Your task to perform on an android device: add a contact in the contacts app Image 0: 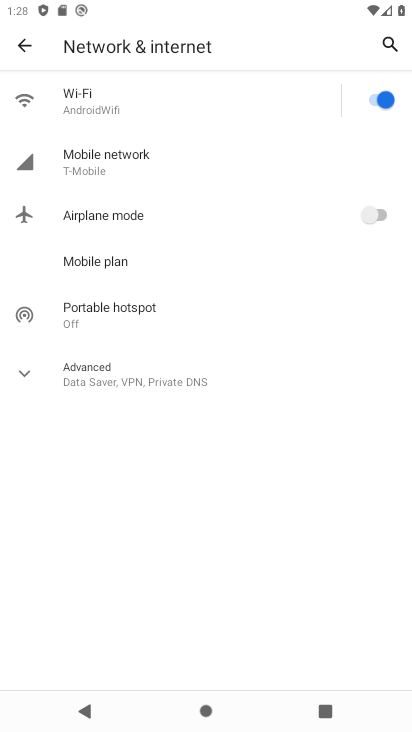
Step 0: press home button
Your task to perform on an android device: add a contact in the contacts app Image 1: 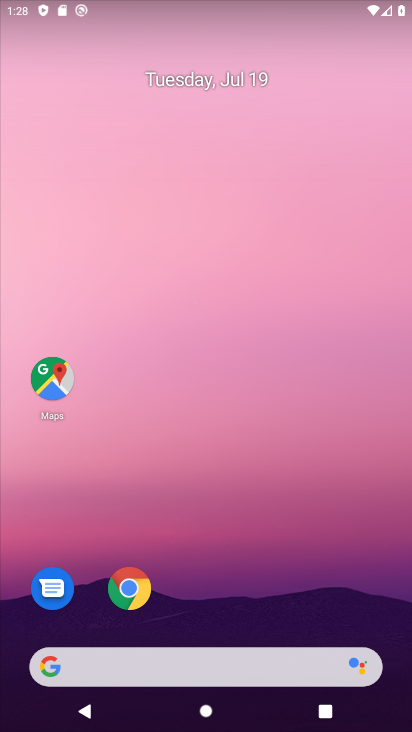
Step 1: drag from (256, 567) to (200, 21)
Your task to perform on an android device: add a contact in the contacts app Image 2: 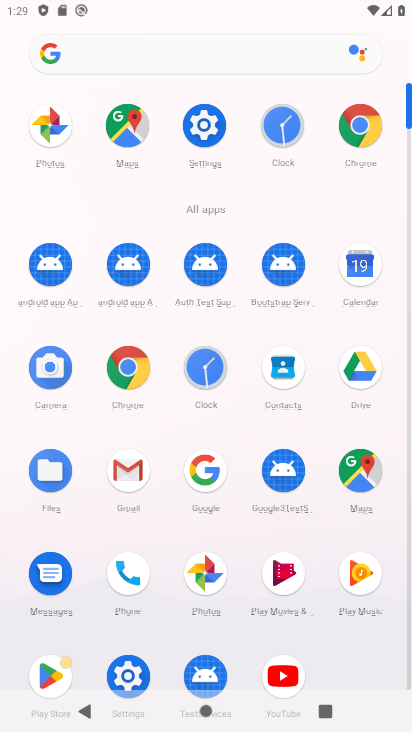
Step 2: click (277, 366)
Your task to perform on an android device: add a contact in the contacts app Image 3: 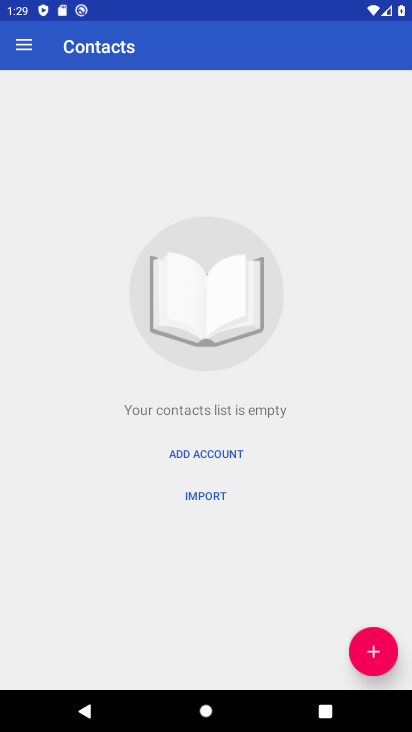
Step 3: click (372, 661)
Your task to perform on an android device: add a contact in the contacts app Image 4: 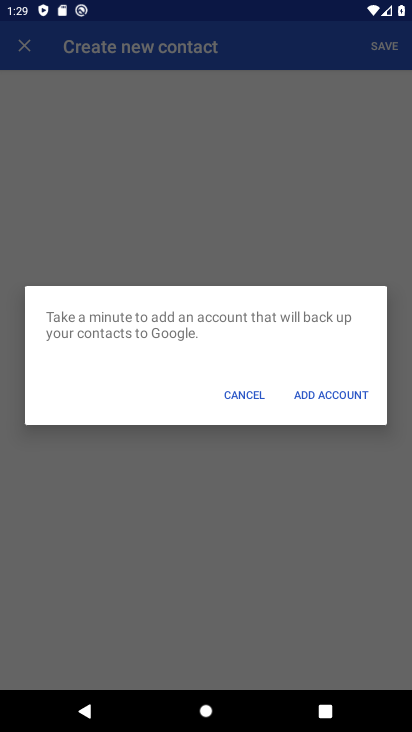
Step 4: click (333, 395)
Your task to perform on an android device: add a contact in the contacts app Image 5: 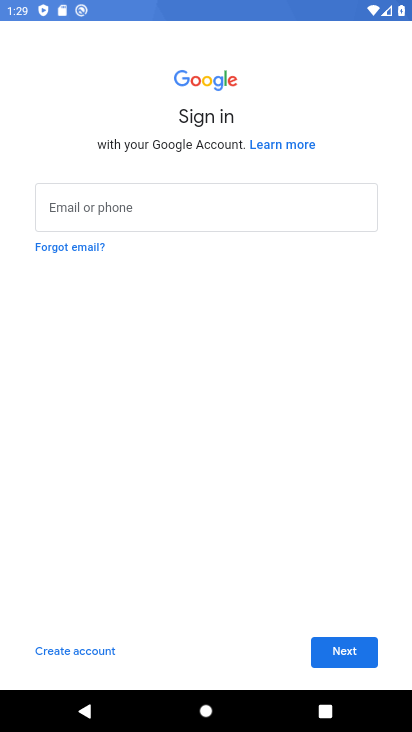
Step 5: task complete